Your task to perform on an android device: open sync settings in chrome Image 0: 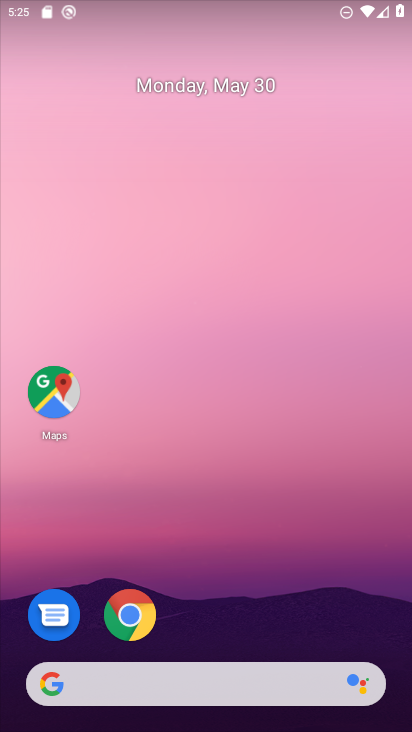
Step 0: click (137, 604)
Your task to perform on an android device: open sync settings in chrome Image 1: 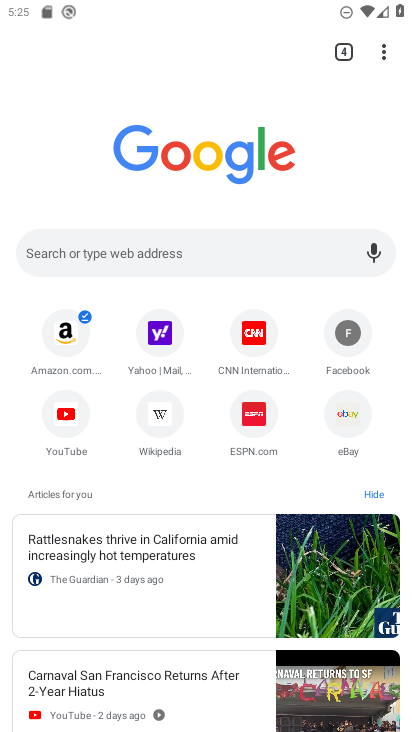
Step 1: click (385, 39)
Your task to perform on an android device: open sync settings in chrome Image 2: 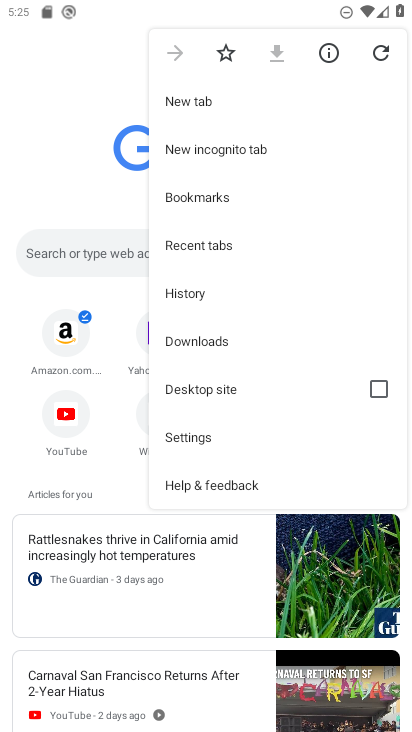
Step 2: click (182, 429)
Your task to perform on an android device: open sync settings in chrome Image 3: 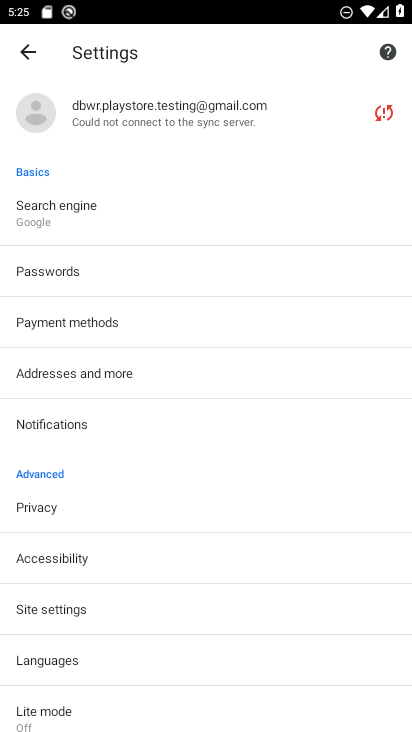
Step 3: click (159, 124)
Your task to perform on an android device: open sync settings in chrome Image 4: 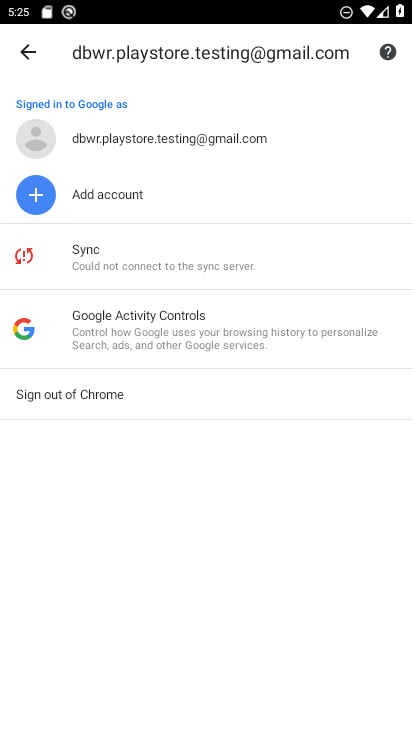
Step 4: click (81, 258)
Your task to perform on an android device: open sync settings in chrome Image 5: 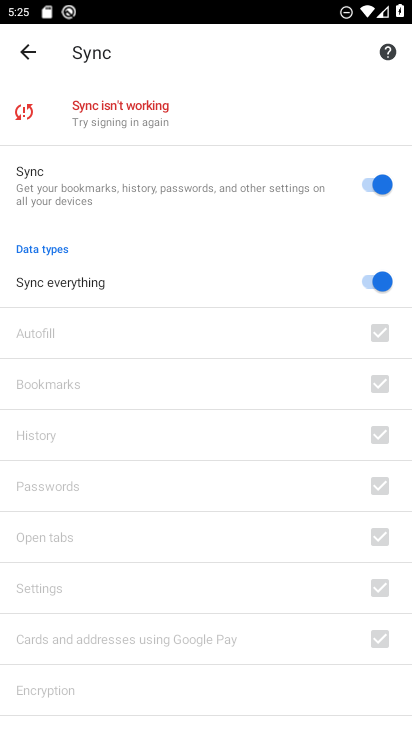
Step 5: task complete